Your task to perform on an android device: Open Android settings Image 0: 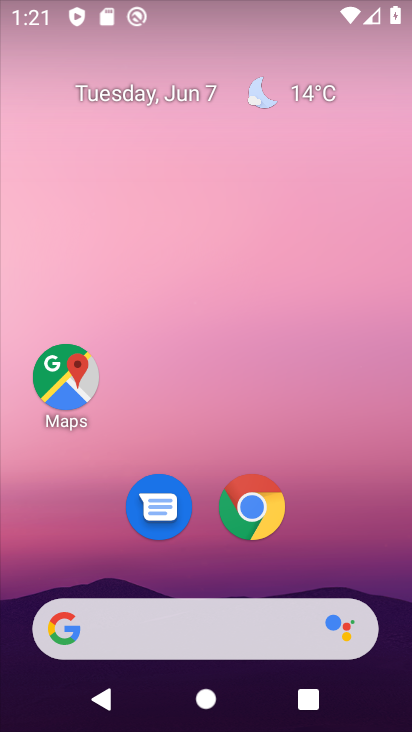
Step 0: drag from (64, 596) to (285, 71)
Your task to perform on an android device: Open Android settings Image 1: 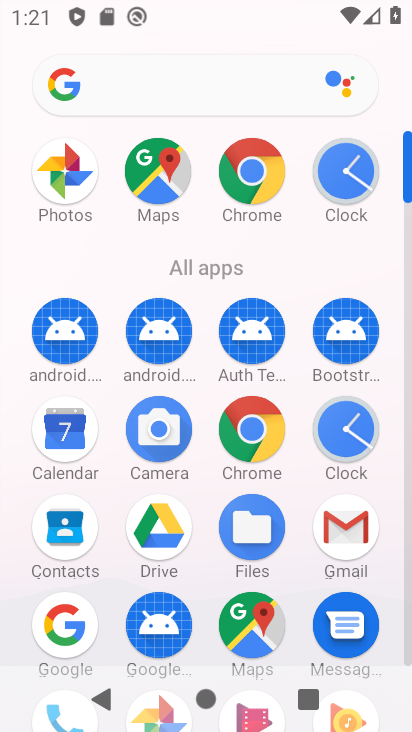
Step 1: drag from (156, 637) to (250, 296)
Your task to perform on an android device: Open Android settings Image 2: 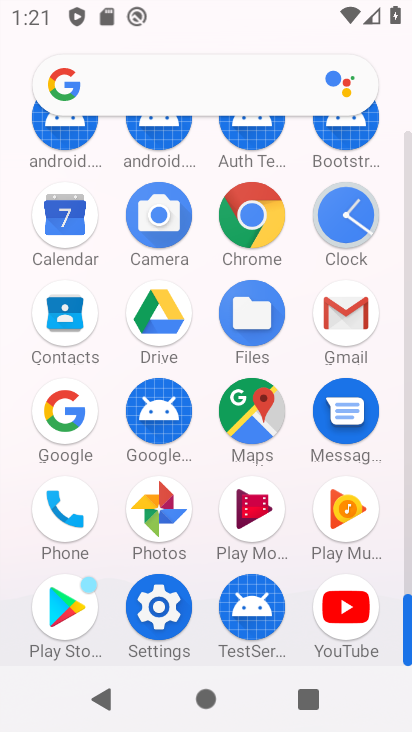
Step 2: click (160, 616)
Your task to perform on an android device: Open Android settings Image 3: 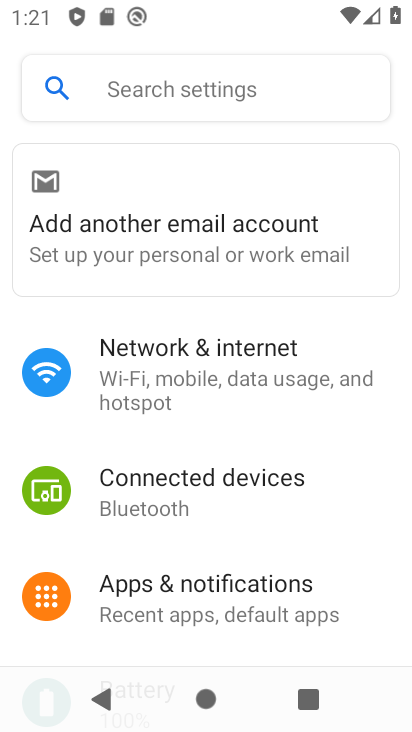
Step 3: task complete